Your task to perform on an android device: Search for "apple airpods pro" on walmart, select the first entry, and add it to the cart. Image 0: 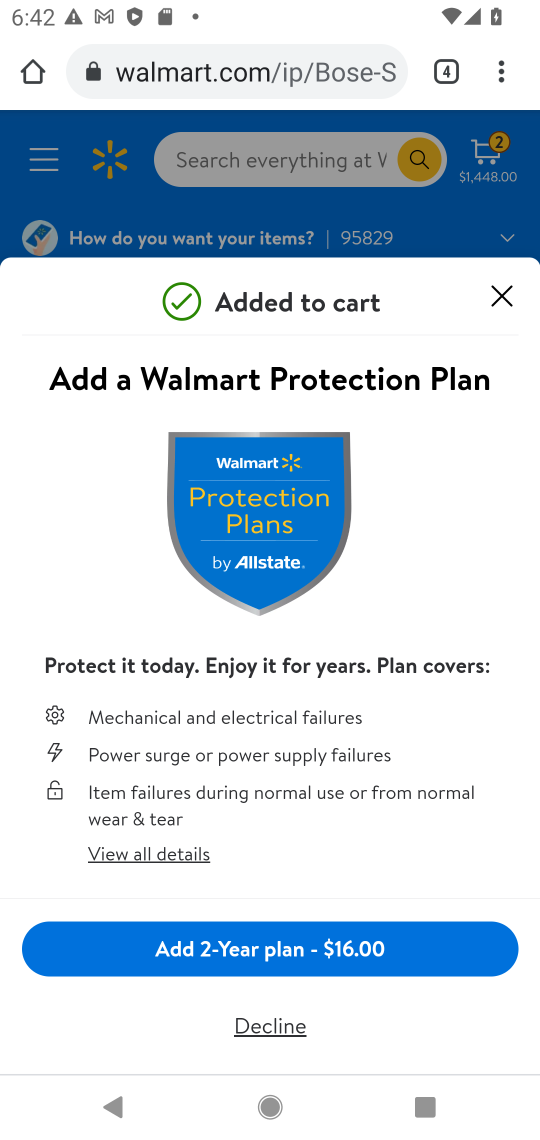
Step 0: drag from (500, 74) to (320, 140)
Your task to perform on an android device: Search for "apple airpods pro" on walmart, select the first entry, and add it to the cart. Image 1: 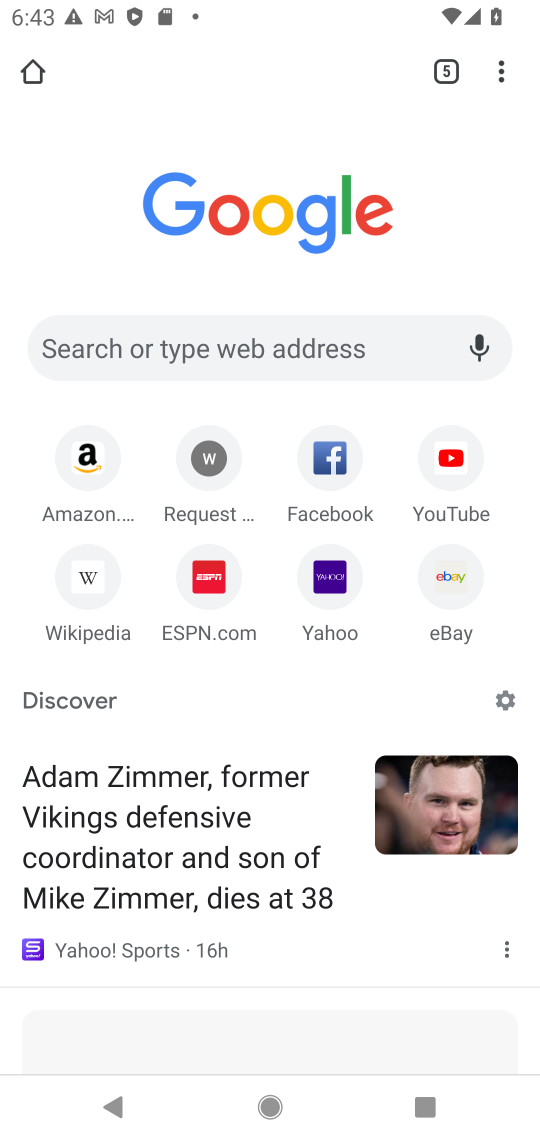
Step 1: click (240, 348)
Your task to perform on an android device: Search for "apple airpods pro" on walmart, select the first entry, and add it to the cart. Image 2: 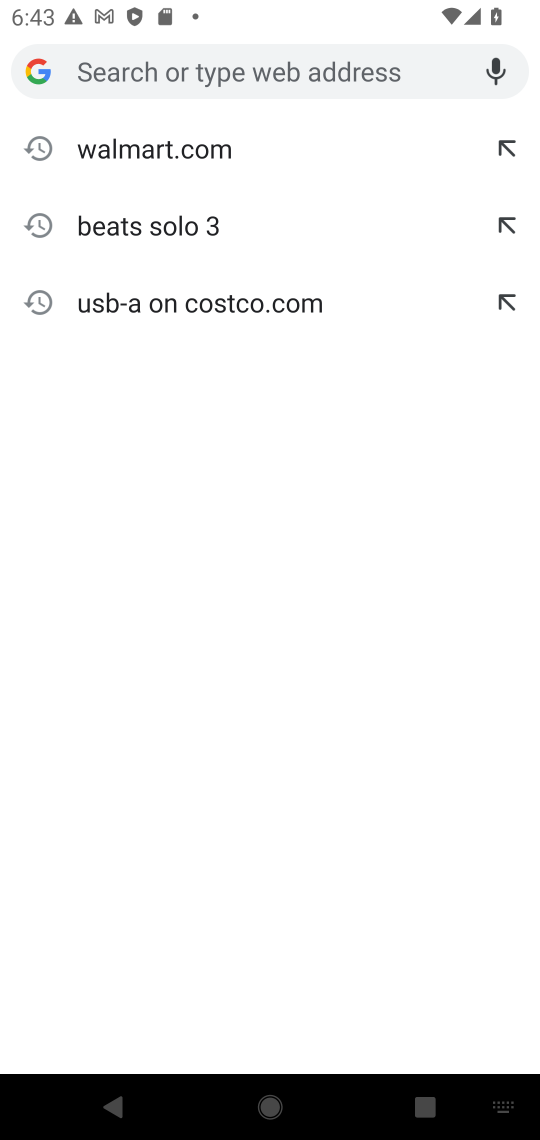
Step 2: type "walmart"
Your task to perform on an android device: Search for "apple airpods pro" on walmart, select the first entry, and add it to the cart. Image 3: 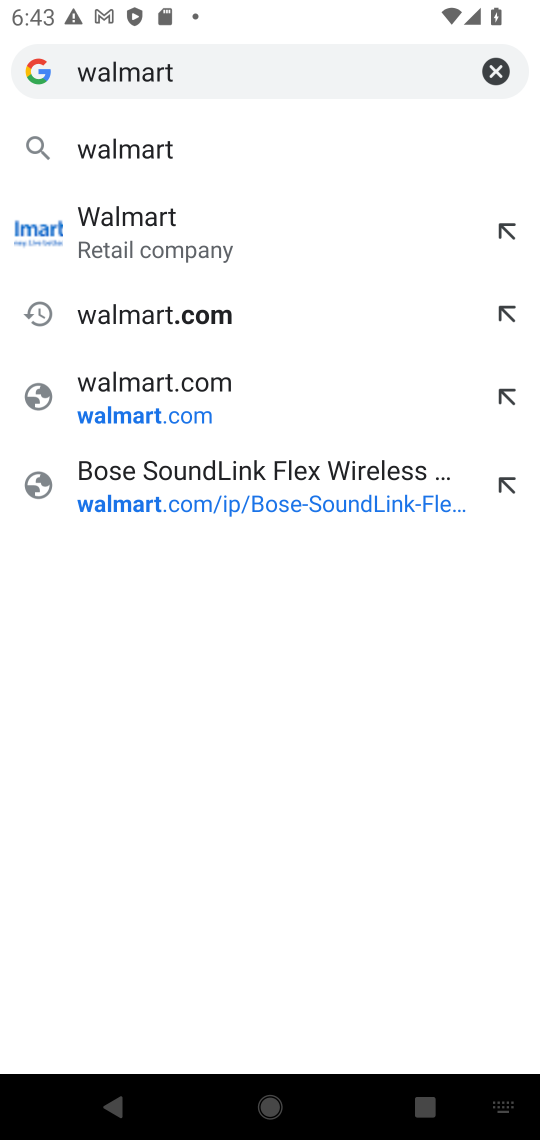
Step 3: click (97, 153)
Your task to perform on an android device: Search for "apple airpods pro" on walmart, select the first entry, and add it to the cart. Image 4: 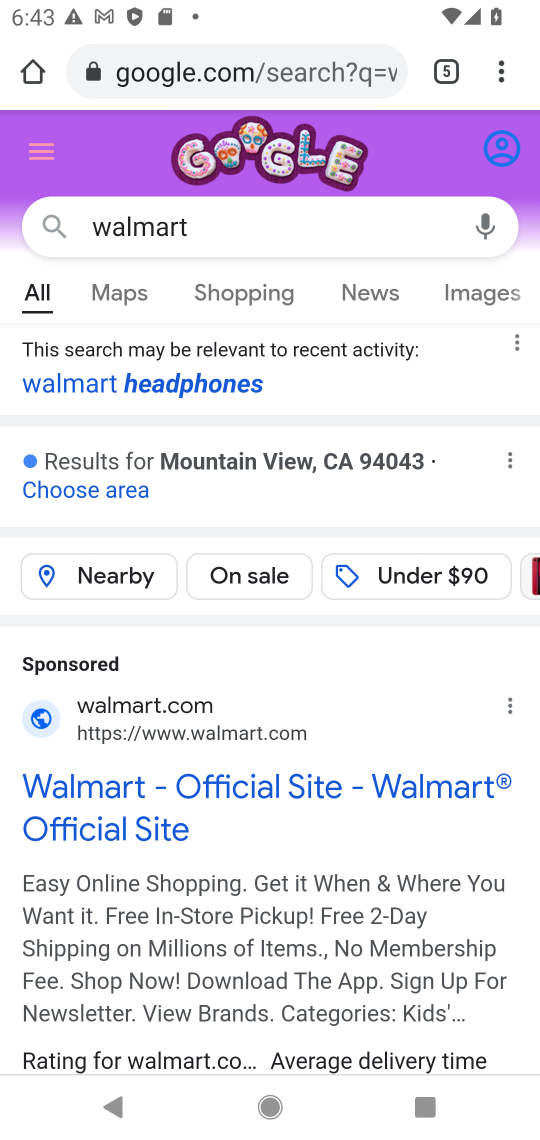
Step 4: click (72, 782)
Your task to perform on an android device: Search for "apple airpods pro" on walmart, select the first entry, and add it to the cart. Image 5: 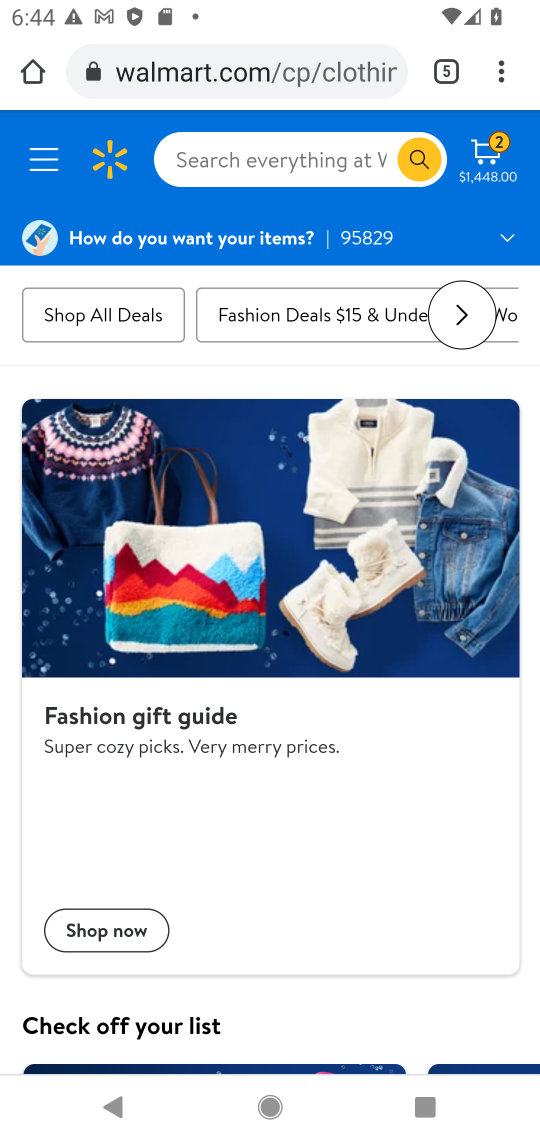
Step 5: click (297, 167)
Your task to perform on an android device: Search for "apple airpods pro" on walmart, select the first entry, and add it to the cart. Image 6: 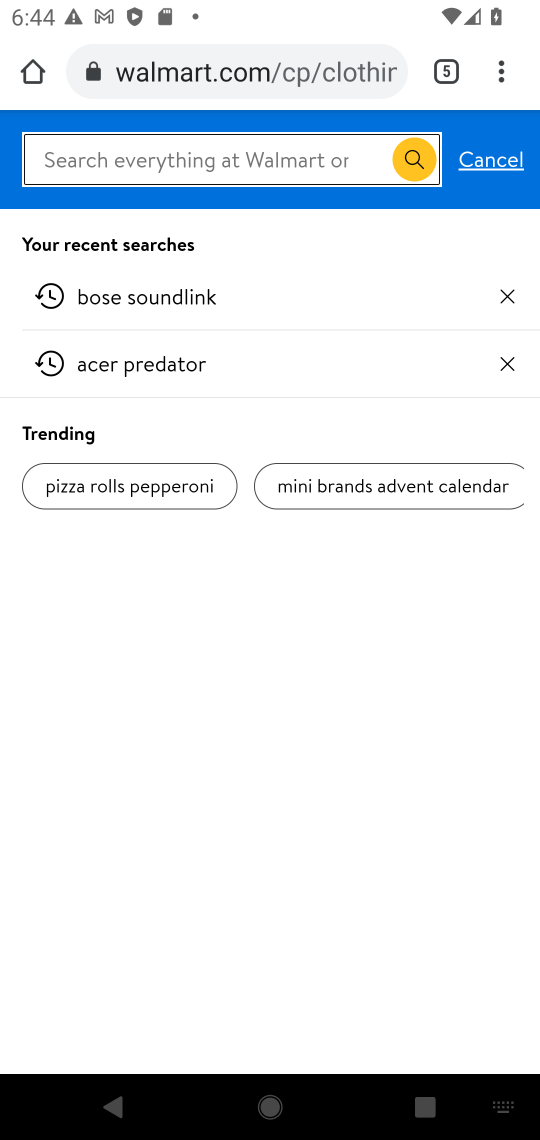
Step 6: type "apple airpods pro"
Your task to perform on an android device: Search for "apple airpods pro" on walmart, select the first entry, and add it to the cart. Image 7: 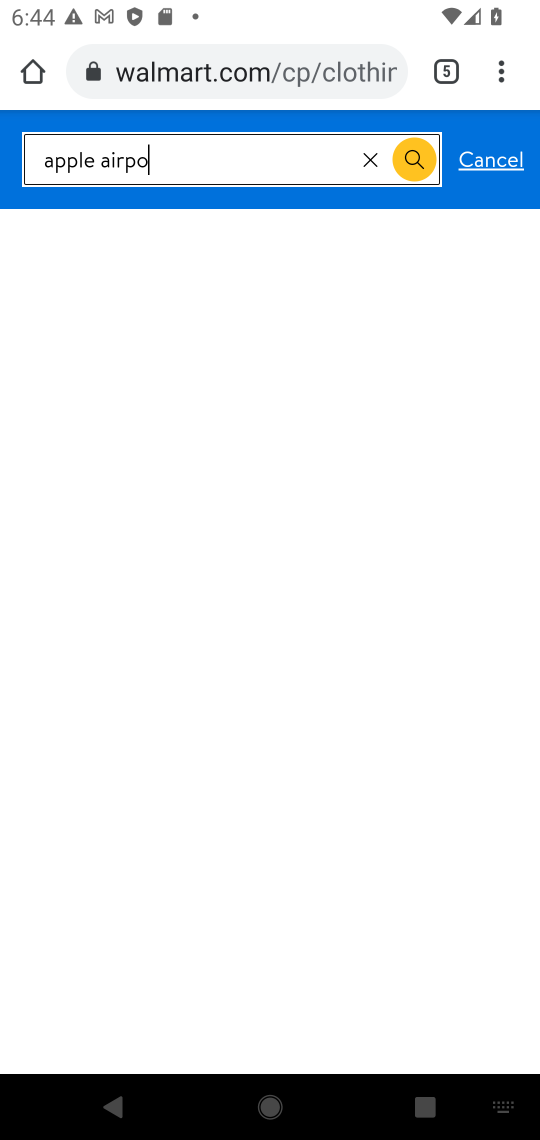
Step 7: type ""
Your task to perform on an android device: Search for "apple airpods pro" on walmart, select the first entry, and add it to the cart. Image 8: 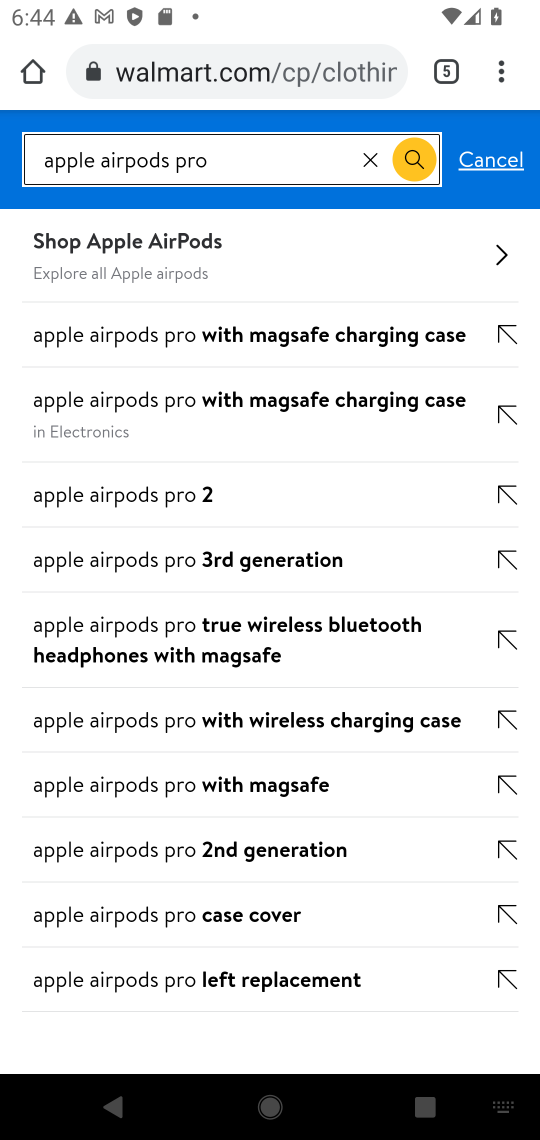
Step 8: click (158, 255)
Your task to perform on an android device: Search for "apple airpods pro" on walmart, select the first entry, and add it to the cart. Image 9: 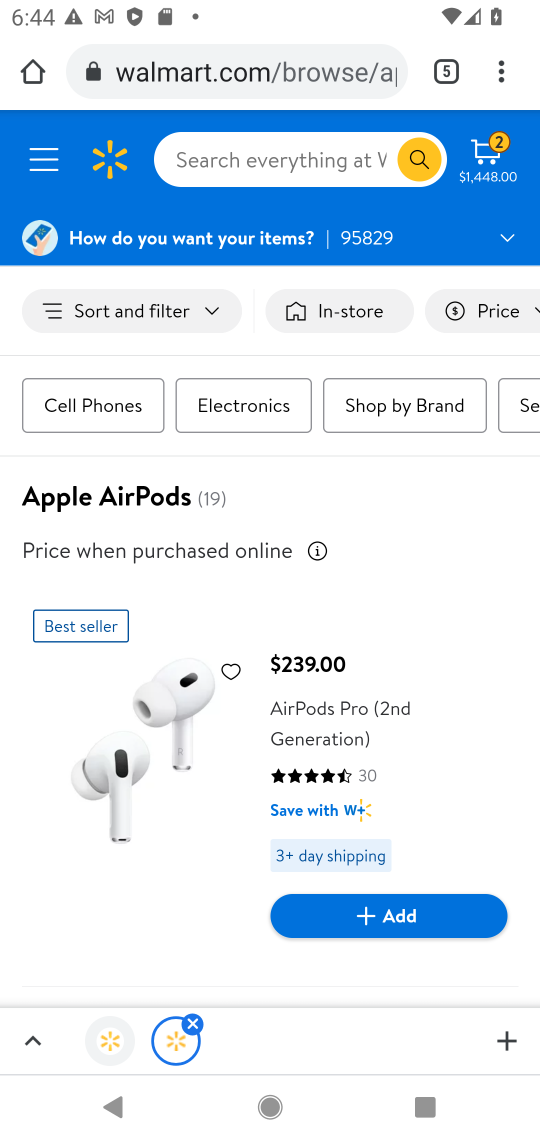
Step 9: click (379, 938)
Your task to perform on an android device: Search for "apple airpods pro" on walmart, select the first entry, and add it to the cart. Image 10: 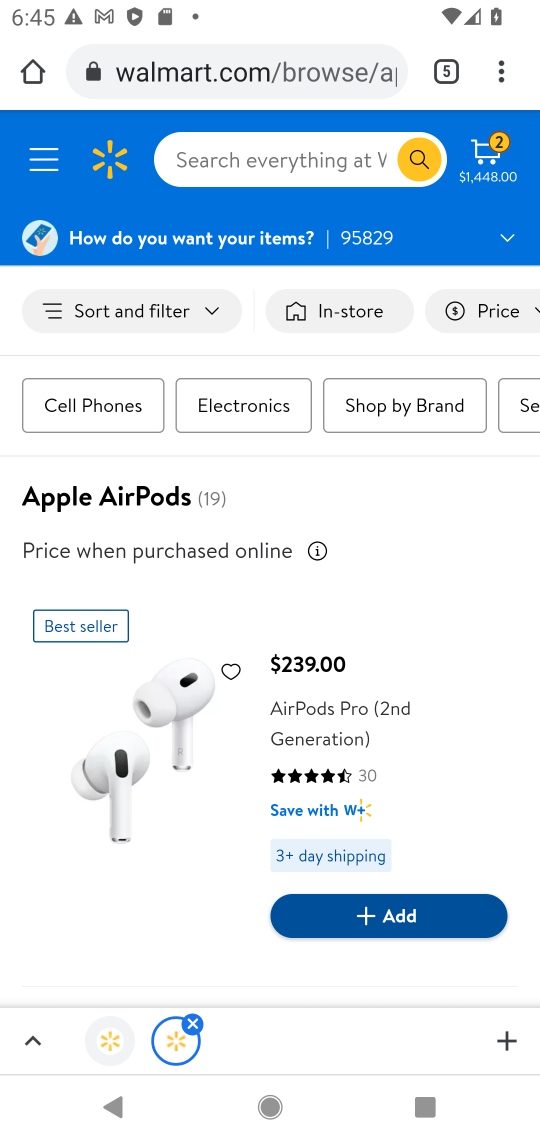
Step 10: click (379, 922)
Your task to perform on an android device: Search for "apple airpods pro" on walmart, select the first entry, and add it to the cart. Image 11: 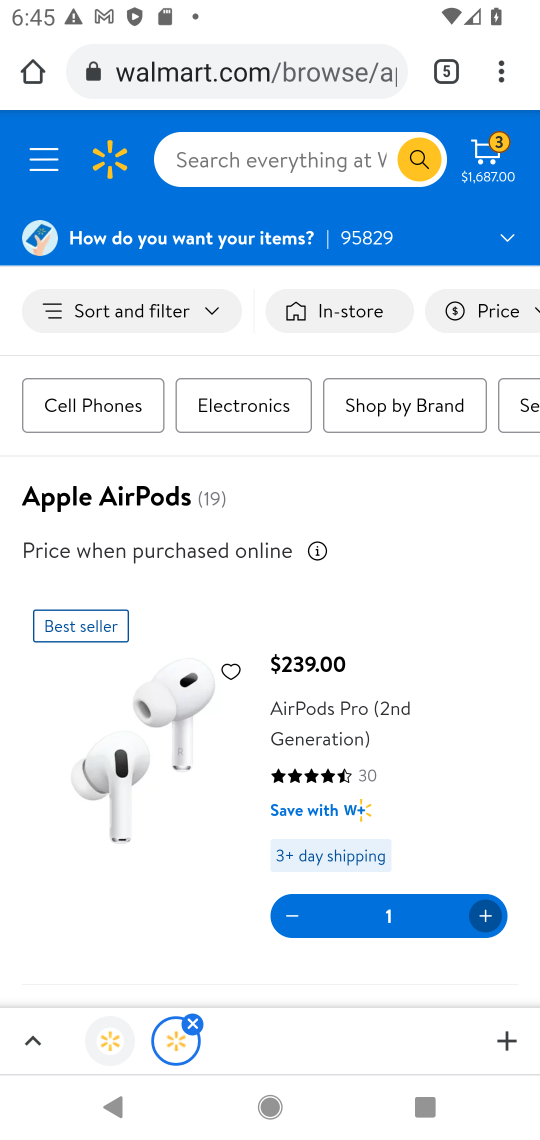
Step 11: task complete